Your task to perform on an android device: Open calendar and show me the first week of next month Image 0: 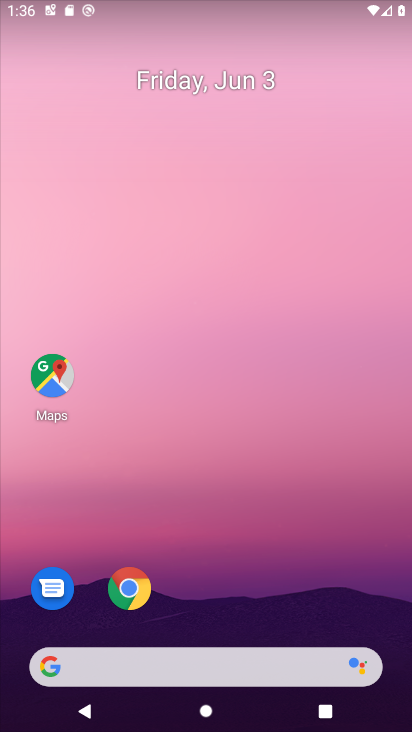
Step 0: drag from (242, 469) to (293, 59)
Your task to perform on an android device: Open calendar and show me the first week of next month Image 1: 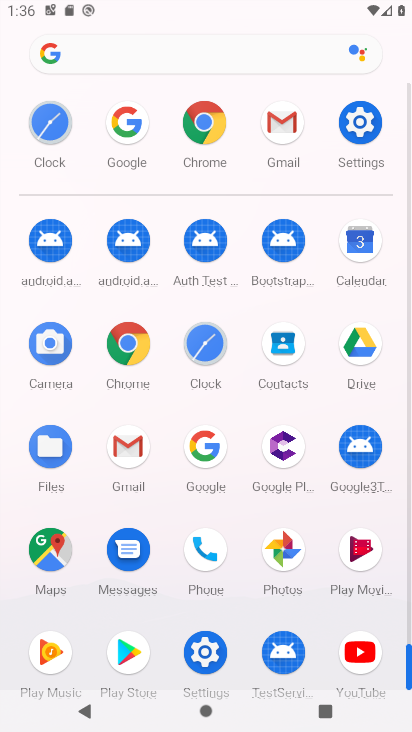
Step 1: click (365, 266)
Your task to perform on an android device: Open calendar and show me the first week of next month Image 2: 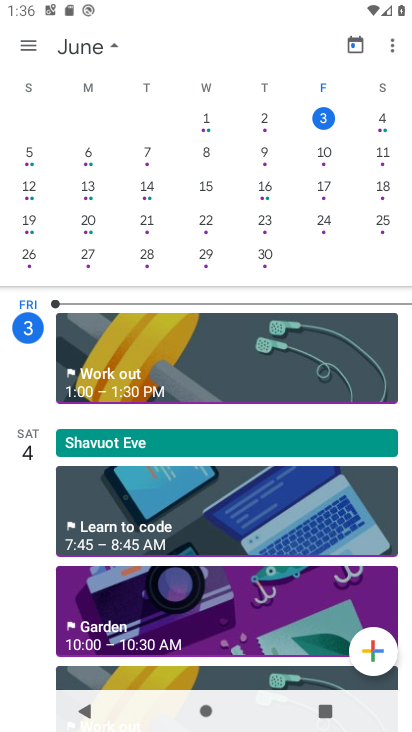
Step 2: task complete